Your task to perform on an android device: change the clock display to analog Image 0: 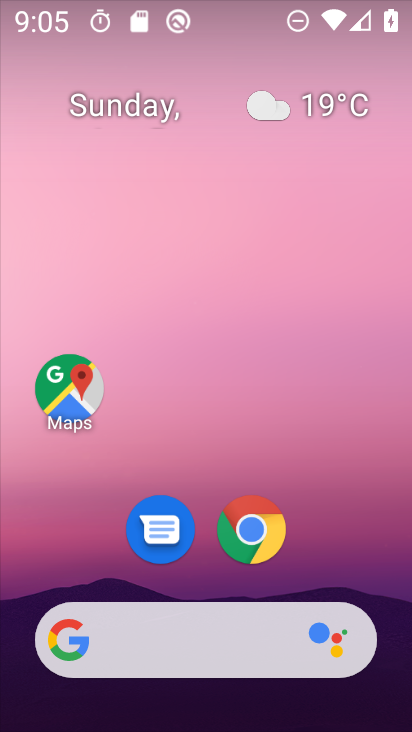
Step 0: drag from (215, 568) to (220, 69)
Your task to perform on an android device: change the clock display to analog Image 1: 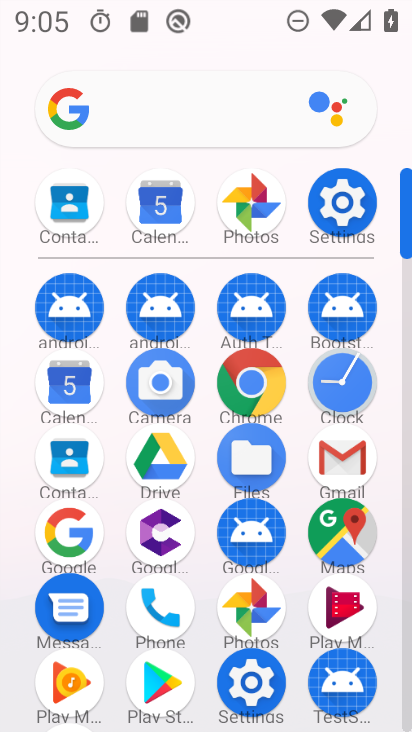
Step 1: click (337, 369)
Your task to perform on an android device: change the clock display to analog Image 2: 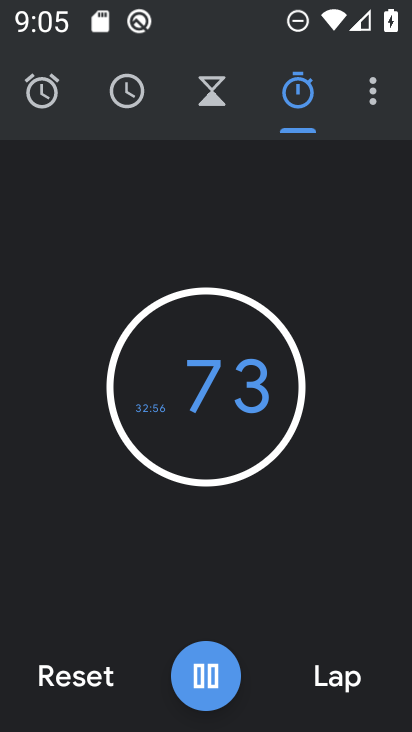
Step 2: click (87, 683)
Your task to perform on an android device: change the clock display to analog Image 3: 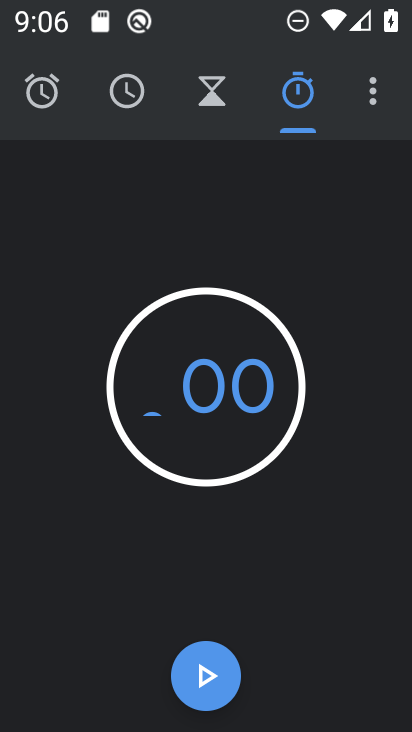
Step 3: click (365, 93)
Your task to perform on an android device: change the clock display to analog Image 4: 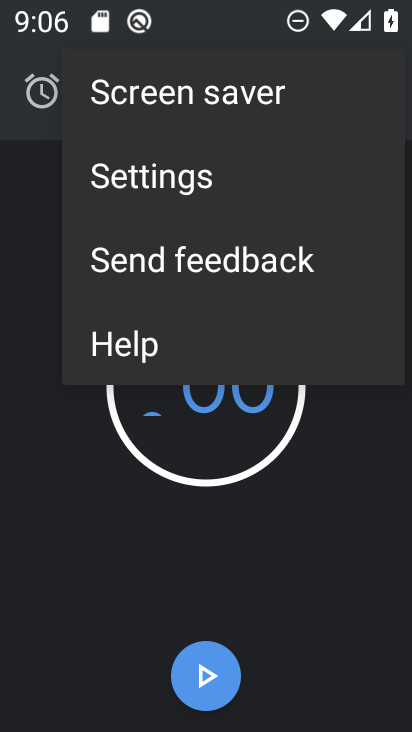
Step 4: click (229, 184)
Your task to perform on an android device: change the clock display to analog Image 5: 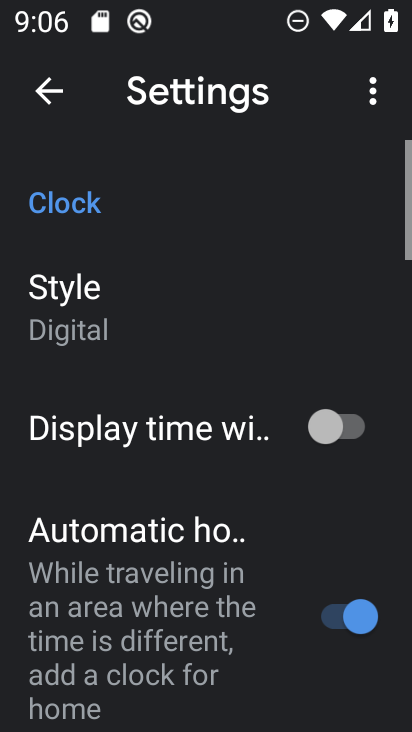
Step 5: click (147, 309)
Your task to perform on an android device: change the clock display to analog Image 6: 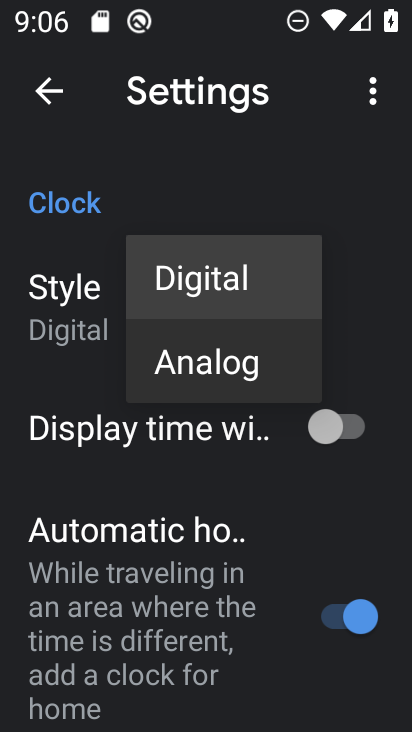
Step 6: click (205, 362)
Your task to perform on an android device: change the clock display to analog Image 7: 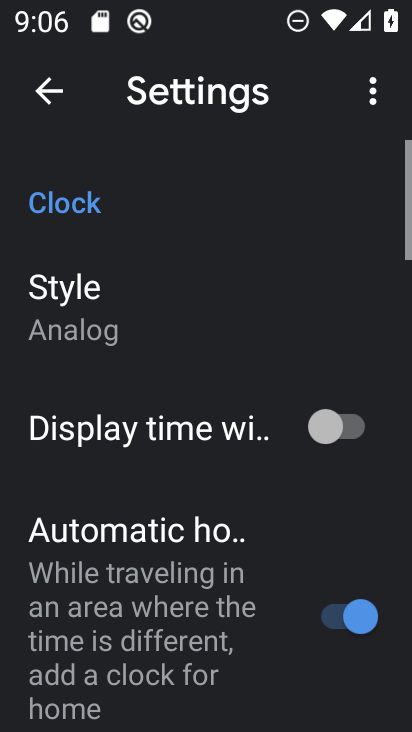
Step 7: task complete